Your task to perform on an android device: read, delete, or share a saved page in the chrome app Image 0: 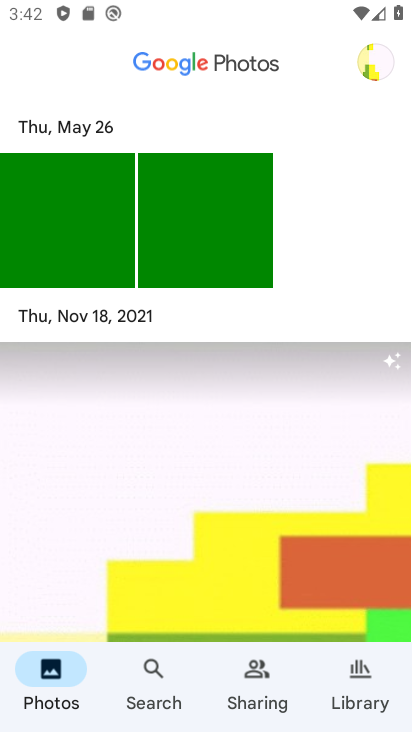
Step 0: press home button
Your task to perform on an android device: read, delete, or share a saved page in the chrome app Image 1: 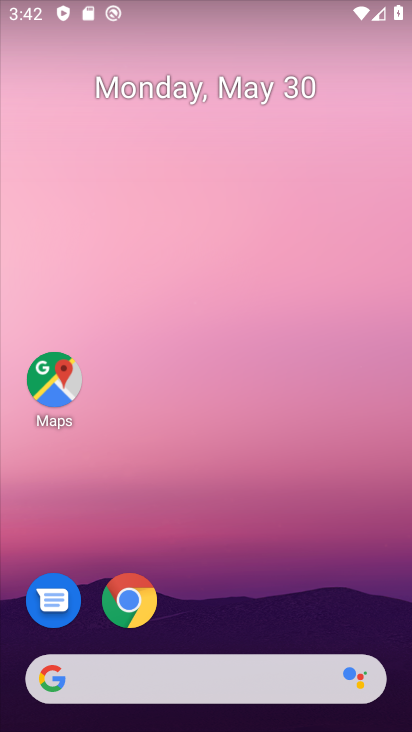
Step 1: click (134, 606)
Your task to perform on an android device: read, delete, or share a saved page in the chrome app Image 2: 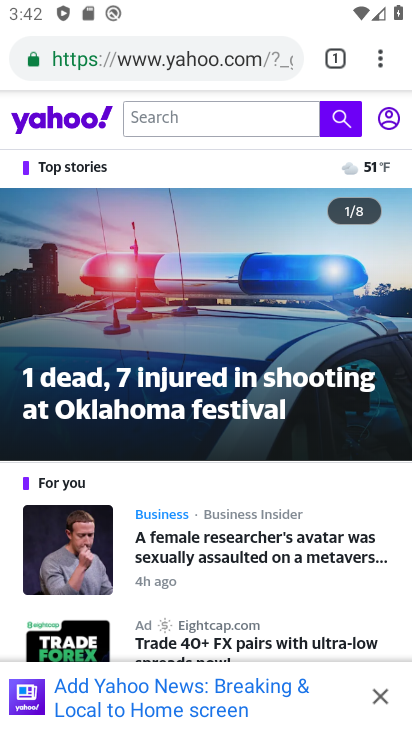
Step 2: click (384, 59)
Your task to perform on an android device: read, delete, or share a saved page in the chrome app Image 3: 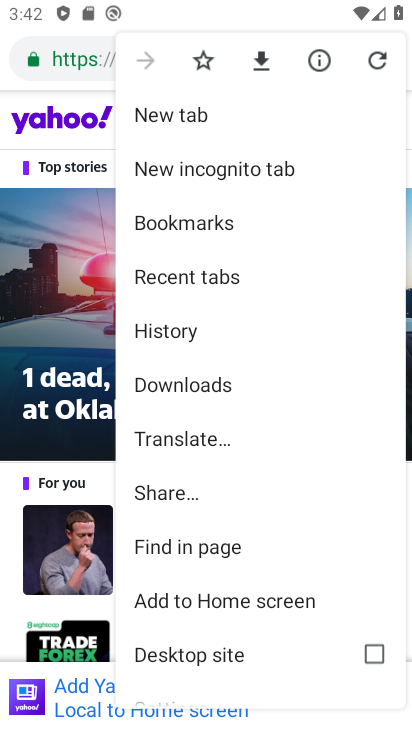
Step 3: click (165, 383)
Your task to perform on an android device: read, delete, or share a saved page in the chrome app Image 4: 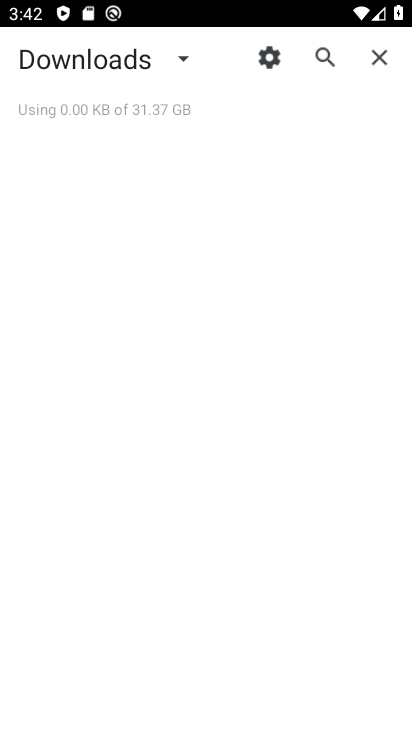
Step 4: click (182, 57)
Your task to perform on an android device: read, delete, or share a saved page in the chrome app Image 5: 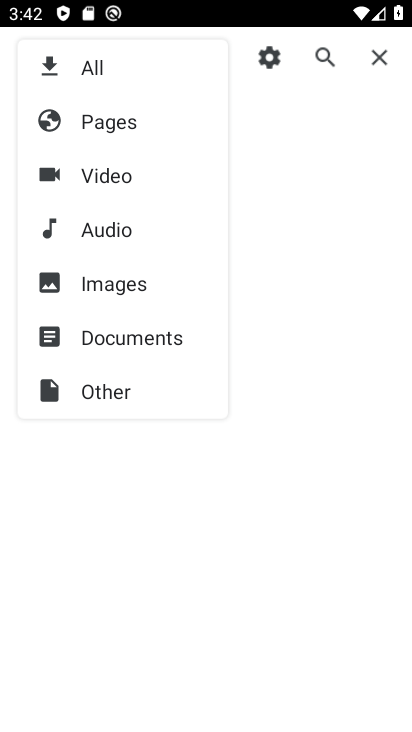
Step 5: click (130, 132)
Your task to perform on an android device: read, delete, or share a saved page in the chrome app Image 6: 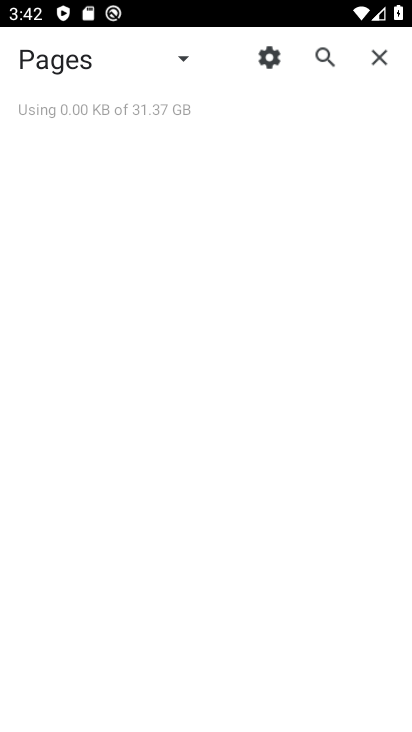
Step 6: task complete